Your task to perform on an android device: remove spam from my inbox in the gmail app Image 0: 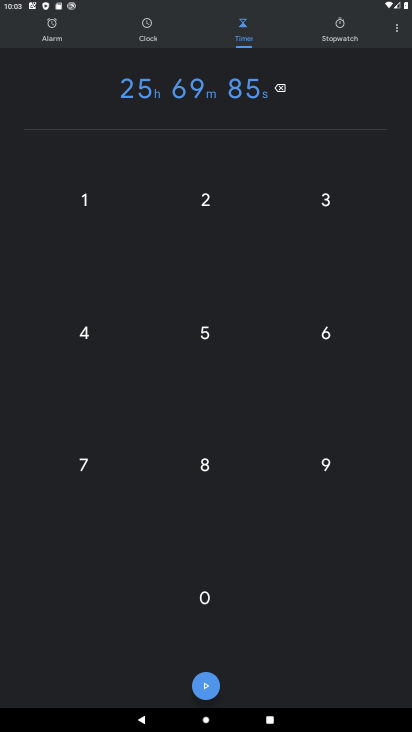
Step 0: press home button
Your task to perform on an android device: remove spam from my inbox in the gmail app Image 1: 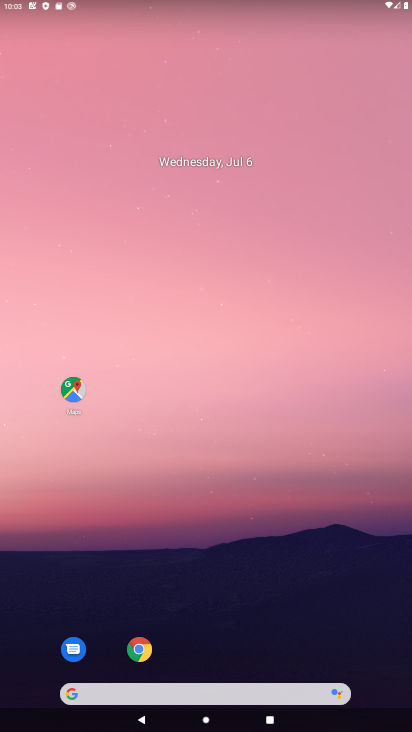
Step 1: drag from (238, 692) to (255, 412)
Your task to perform on an android device: remove spam from my inbox in the gmail app Image 2: 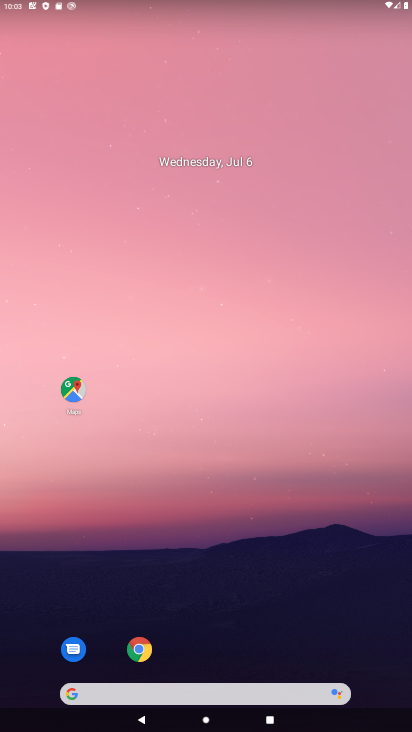
Step 2: drag from (187, 690) to (161, 94)
Your task to perform on an android device: remove spam from my inbox in the gmail app Image 3: 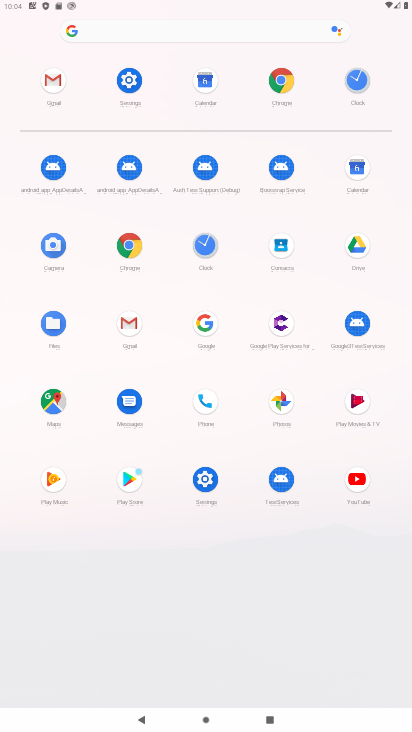
Step 3: click (131, 338)
Your task to perform on an android device: remove spam from my inbox in the gmail app Image 4: 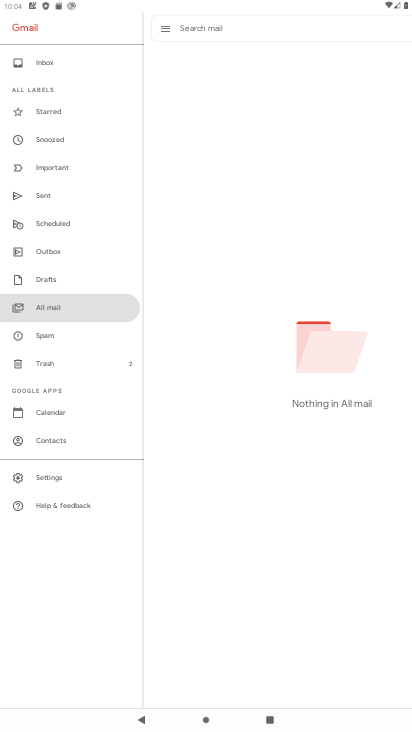
Step 4: click (34, 343)
Your task to perform on an android device: remove spam from my inbox in the gmail app Image 5: 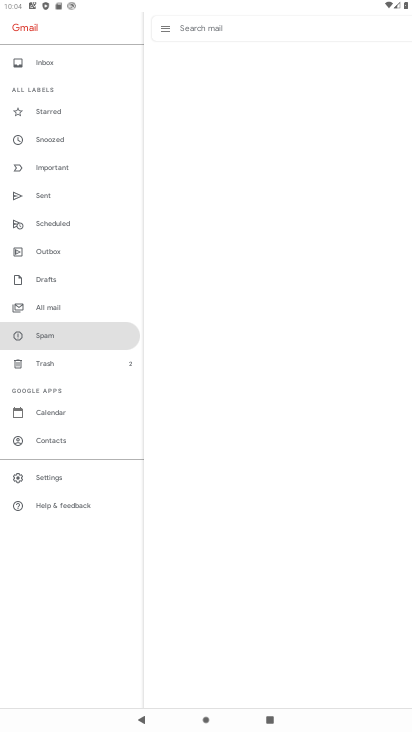
Step 5: click (34, 343)
Your task to perform on an android device: remove spam from my inbox in the gmail app Image 6: 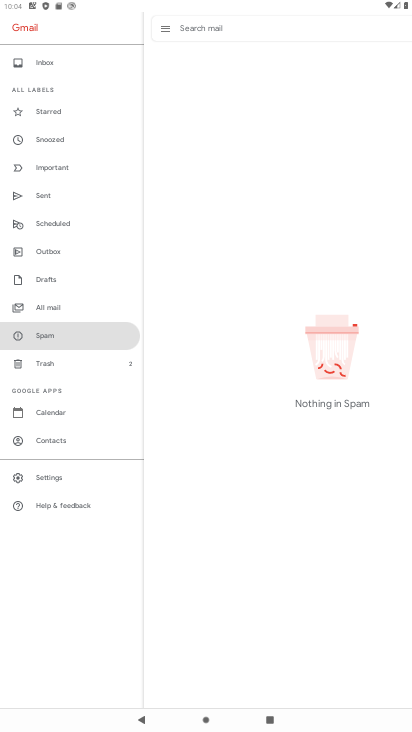
Step 6: task complete